Your task to perform on an android device: Do I have any events tomorrow? Image 0: 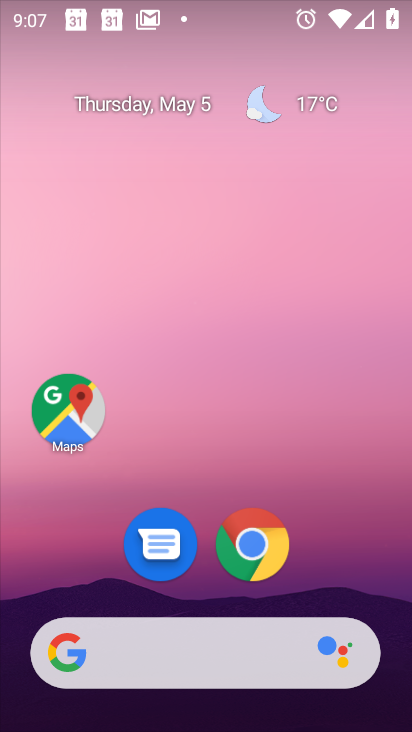
Step 0: drag from (344, 558) to (292, 107)
Your task to perform on an android device: Do I have any events tomorrow? Image 1: 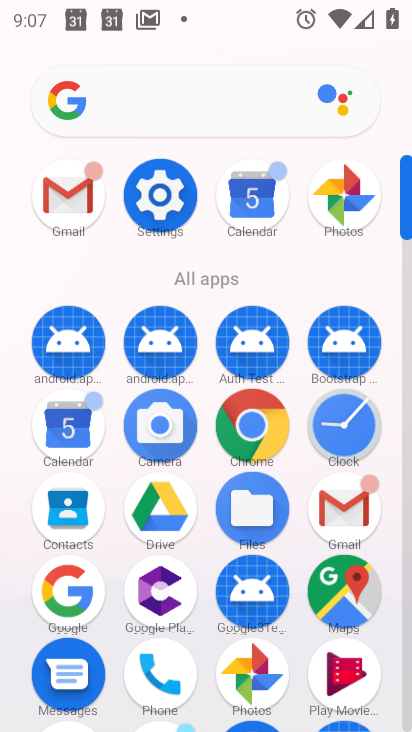
Step 1: click (250, 192)
Your task to perform on an android device: Do I have any events tomorrow? Image 2: 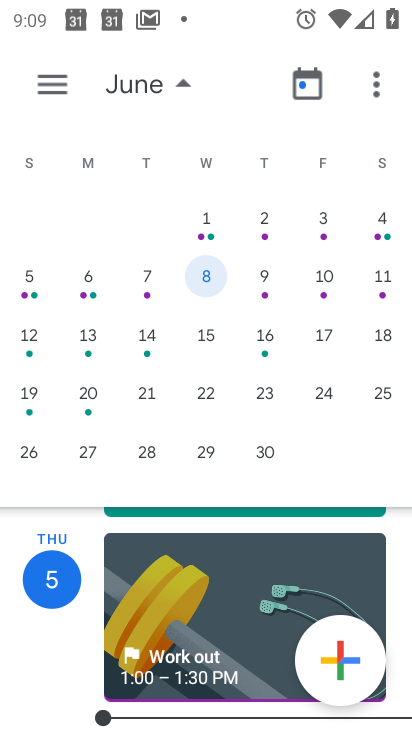
Step 2: click (64, 103)
Your task to perform on an android device: Do I have any events tomorrow? Image 3: 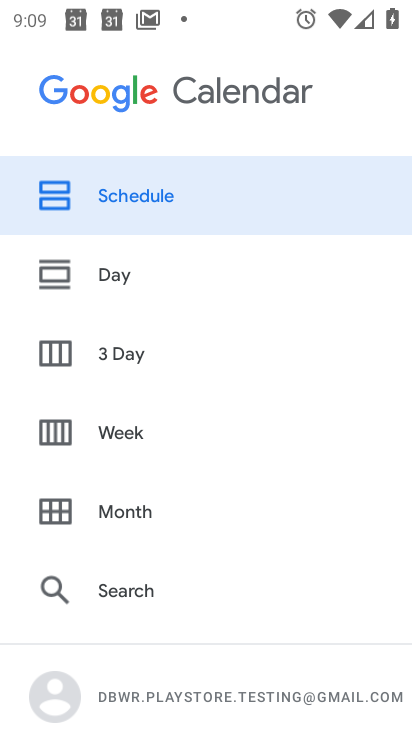
Step 3: click (92, 336)
Your task to perform on an android device: Do I have any events tomorrow? Image 4: 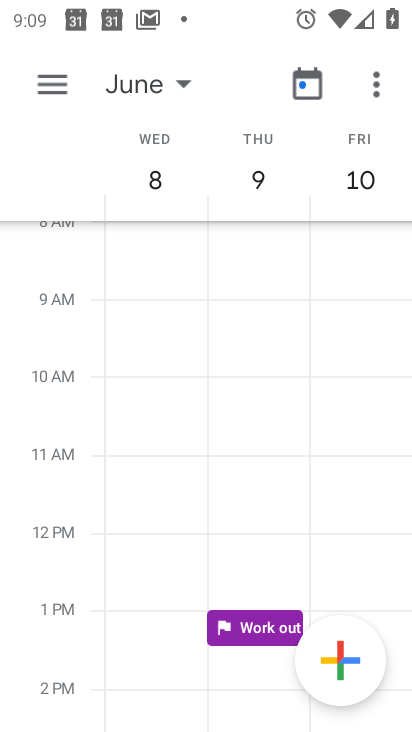
Step 4: task complete